Your task to perform on an android device: Open the map Image 0: 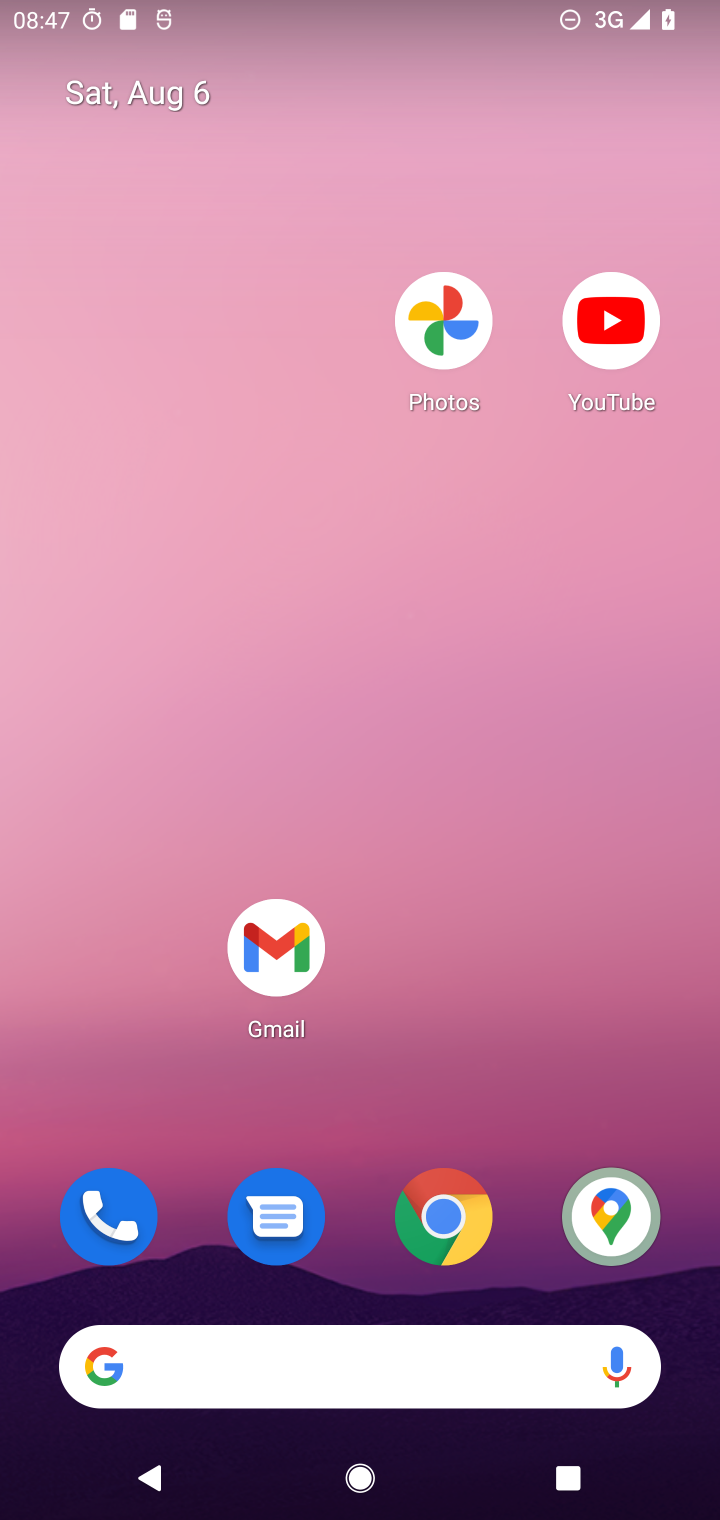
Step 0: drag from (502, 1070) to (511, 143)
Your task to perform on an android device: Open the map Image 1: 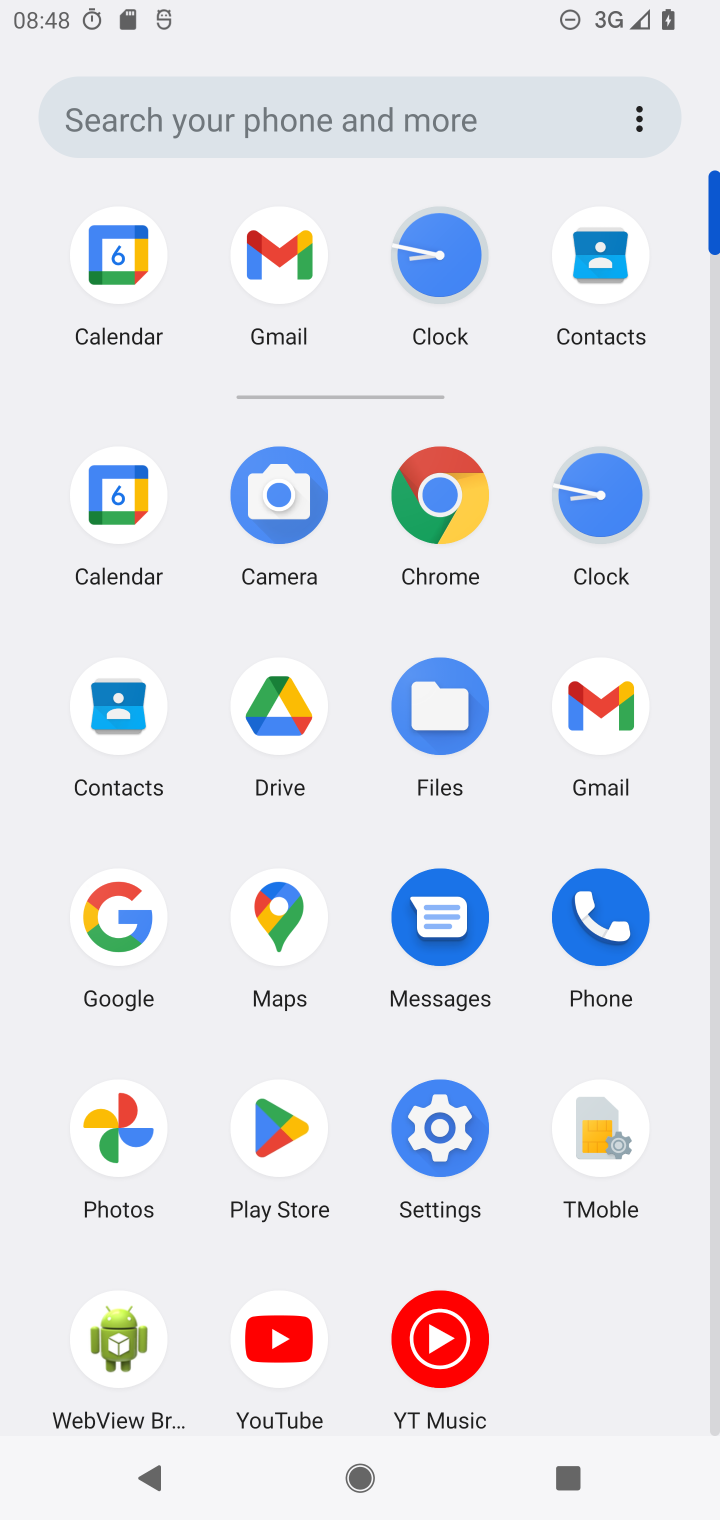
Step 1: click (279, 927)
Your task to perform on an android device: Open the map Image 2: 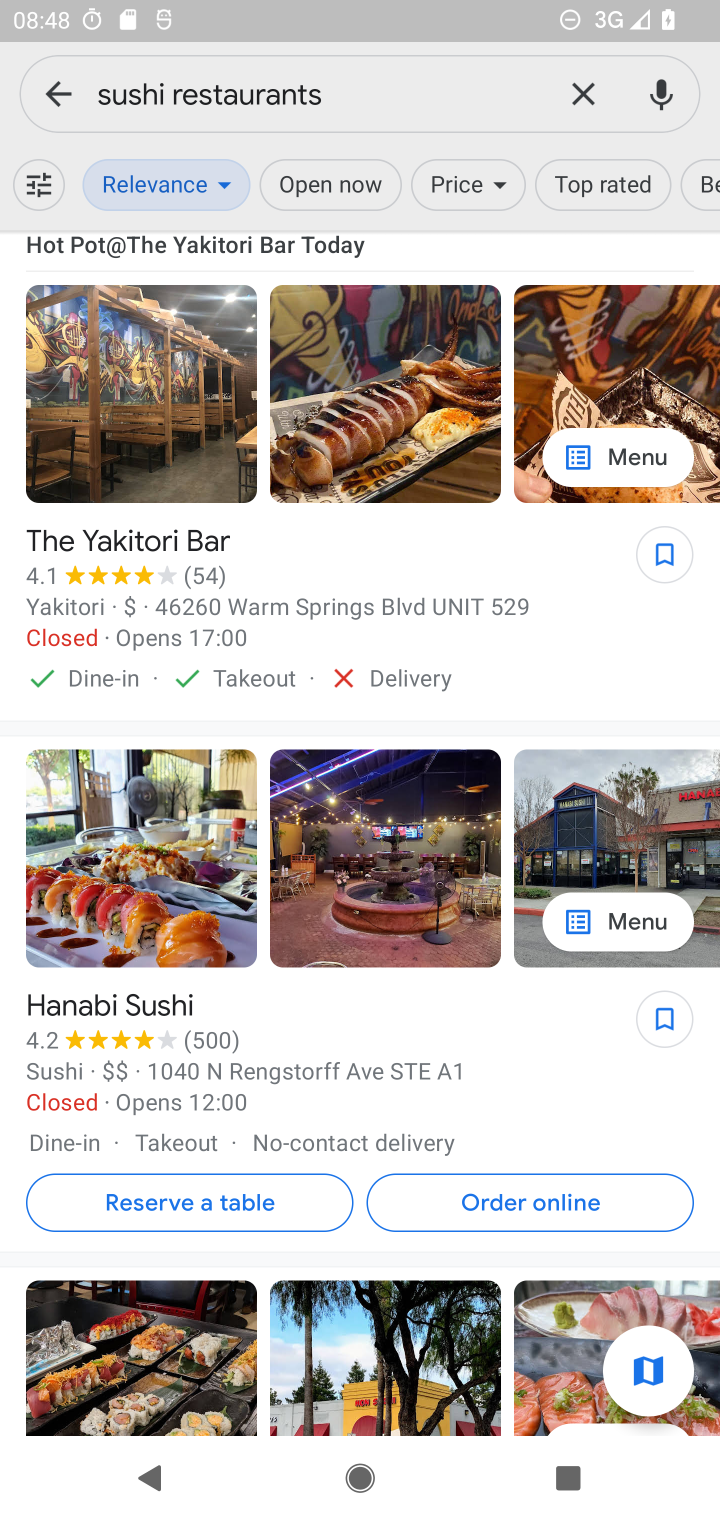
Step 2: task complete